Your task to perform on an android device: see creations saved in the google photos Image 0: 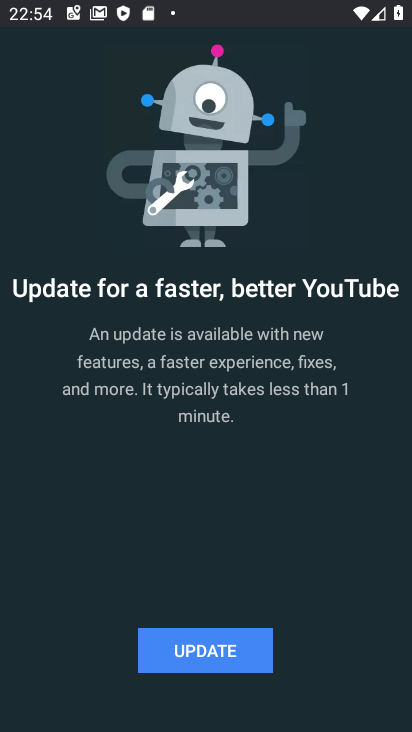
Step 0: press home button
Your task to perform on an android device: see creations saved in the google photos Image 1: 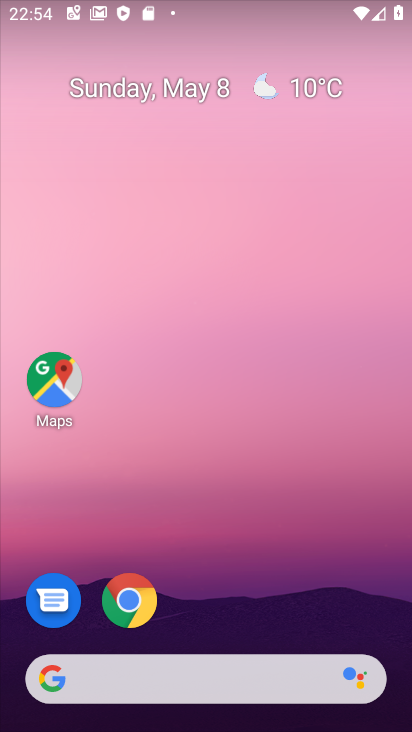
Step 1: drag from (184, 612) to (186, 240)
Your task to perform on an android device: see creations saved in the google photos Image 2: 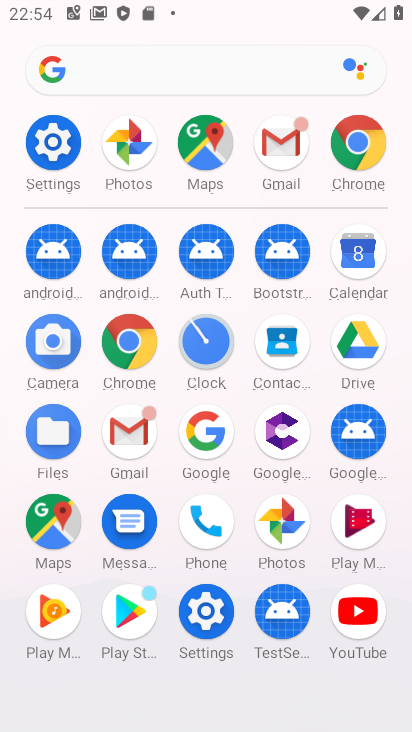
Step 2: click (130, 128)
Your task to perform on an android device: see creations saved in the google photos Image 3: 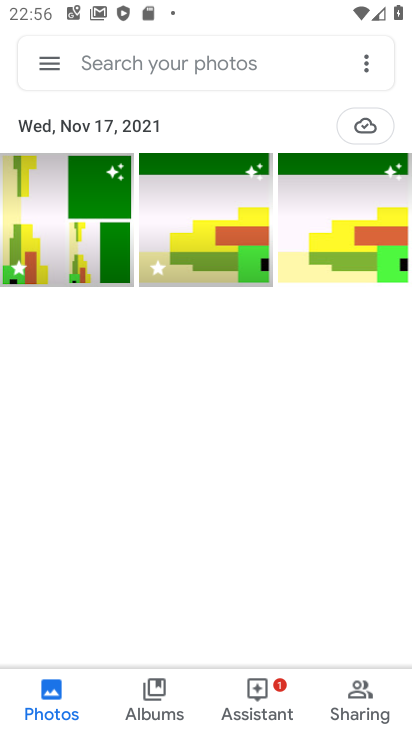
Step 3: task complete